Your task to perform on an android device: turn on wifi Image 0: 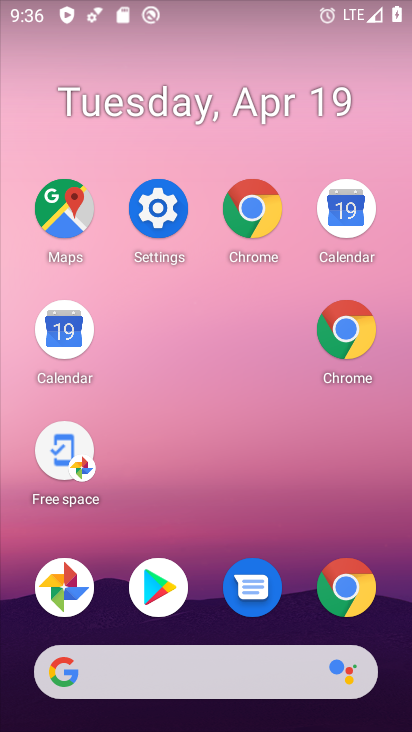
Step 0: click (163, 226)
Your task to perform on an android device: turn on wifi Image 1: 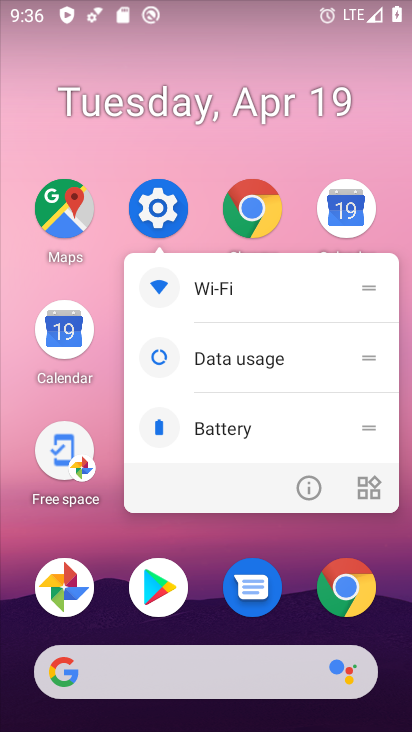
Step 1: click (163, 205)
Your task to perform on an android device: turn on wifi Image 2: 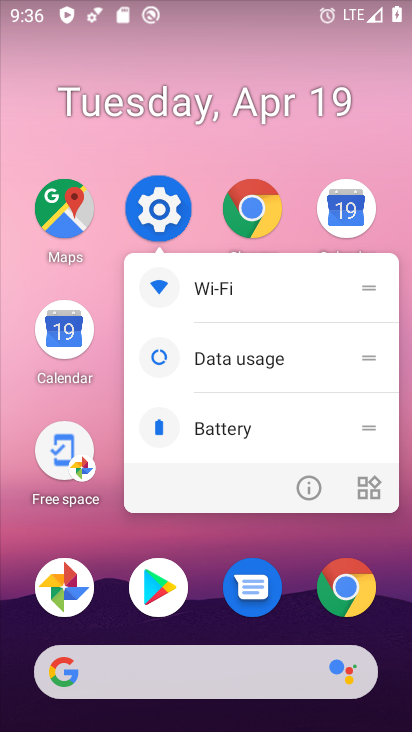
Step 2: click (164, 204)
Your task to perform on an android device: turn on wifi Image 3: 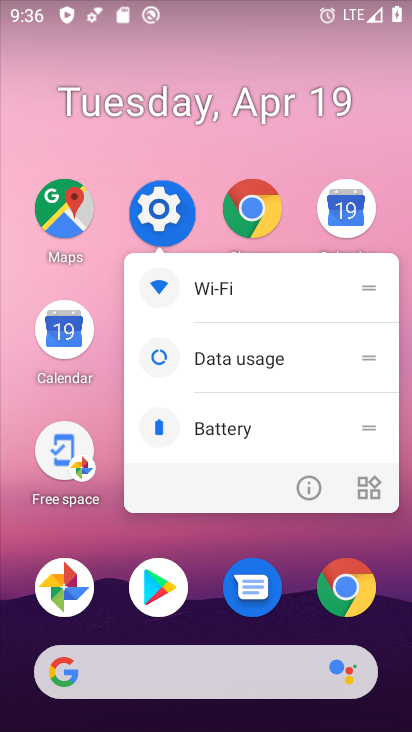
Step 3: click (171, 222)
Your task to perform on an android device: turn on wifi Image 4: 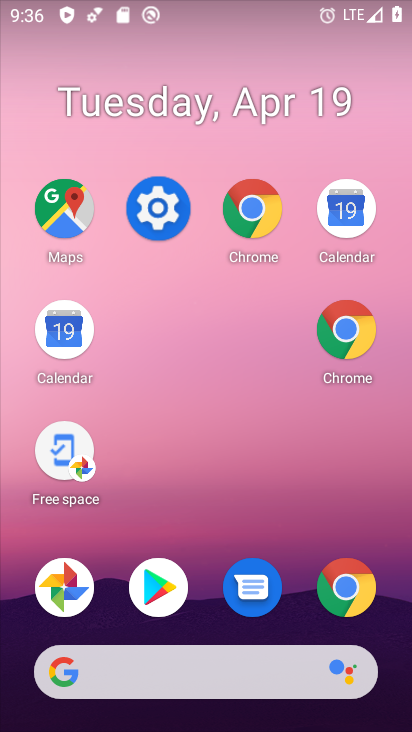
Step 4: click (201, 294)
Your task to perform on an android device: turn on wifi Image 5: 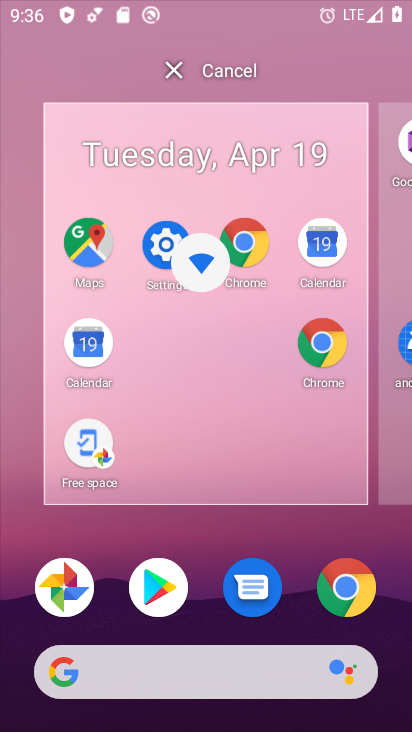
Step 5: click (201, 289)
Your task to perform on an android device: turn on wifi Image 6: 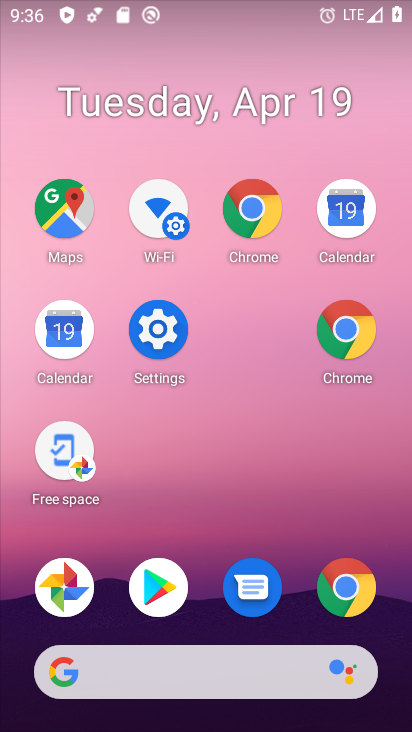
Step 6: click (165, 337)
Your task to perform on an android device: turn on wifi Image 7: 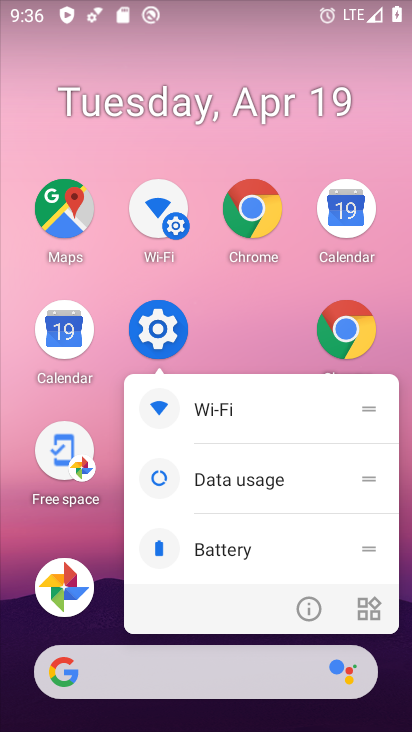
Step 7: click (206, 402)
Your task to perform on an android device: turn on wifi Image 8: 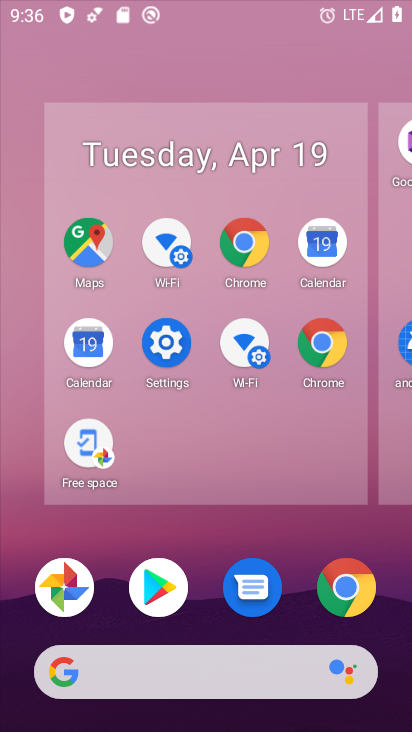
Step 8: click (158, 338)
Your task to perform on an android device: turn on wifi Image 9: 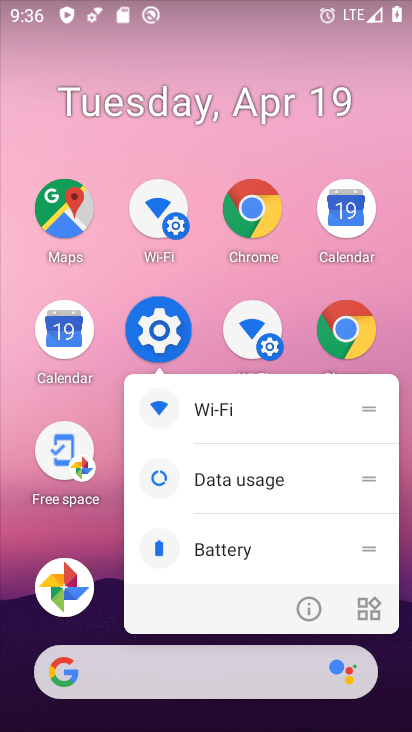
Step 9: click (158, 338)
Your task to perform on an android device: turn on wifi Image 10: 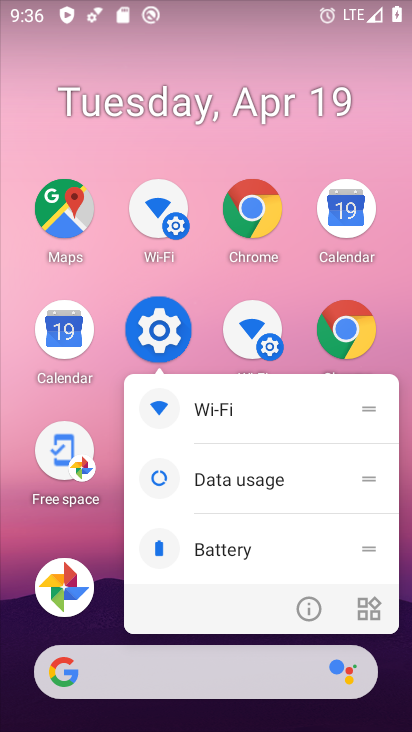
Step 10: click (158, 338)
Your task to perform on an android device: turn on wifi Image 11: 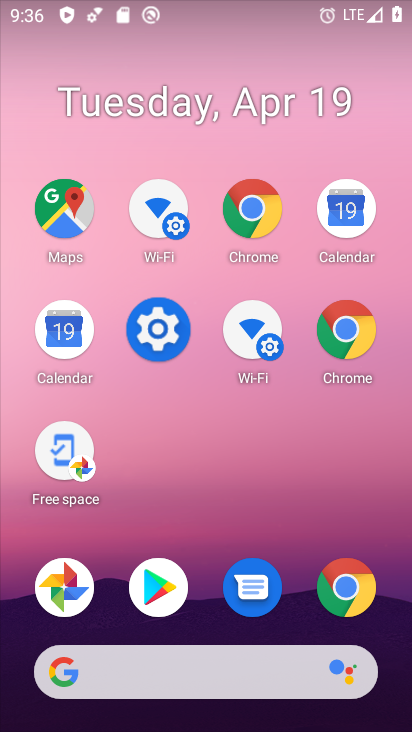
Step 11: click (158, 338)
Your task to perform on an android device: turn on wifi Image 12: 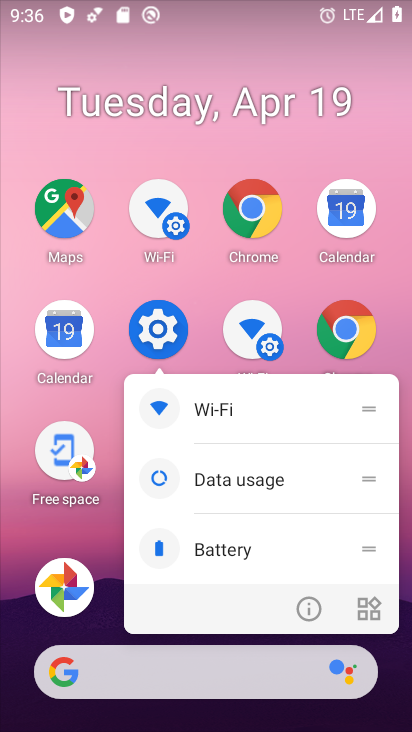
Step 12: click (158, 338)
Your task to perform on an android device: turn on wifi Image 13: 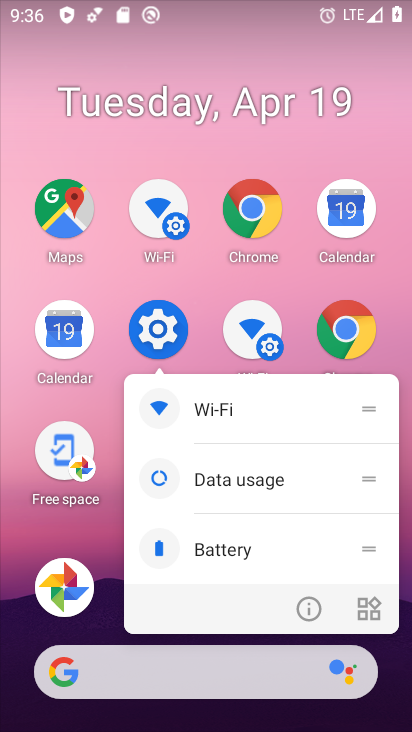
Step 13: click (158, 338)
Your task to perform on an android device: turn on wifi Image 14: 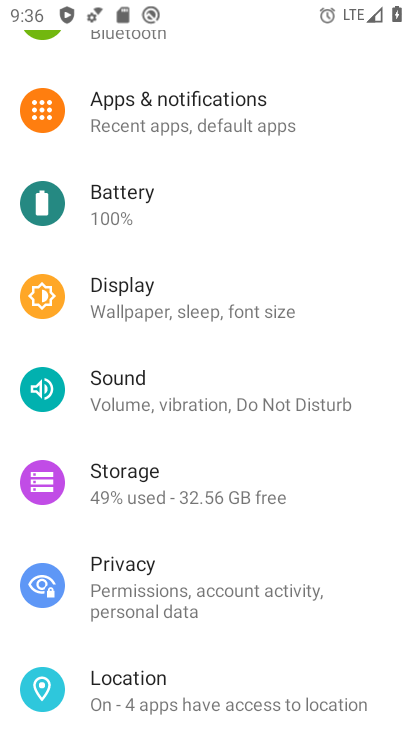
Step 14: drag from (129, 84) to (146, 514)
Your task to perform on an android device: turn on wifi Image 15: 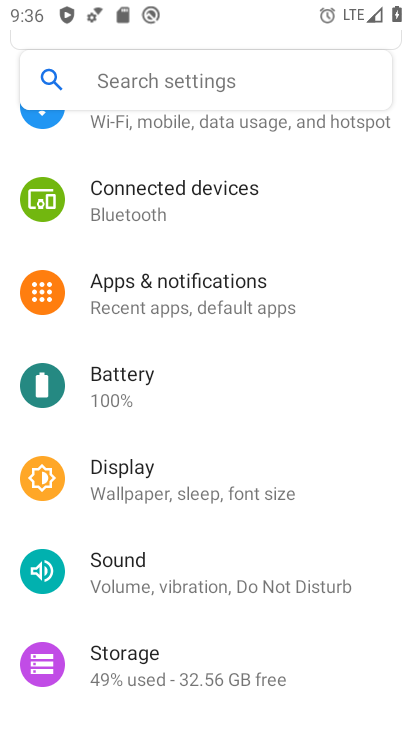
Step 15: drag from (201, 280) to (235, 647)
Your task to perform on an android device: turn on wifi Image 16: 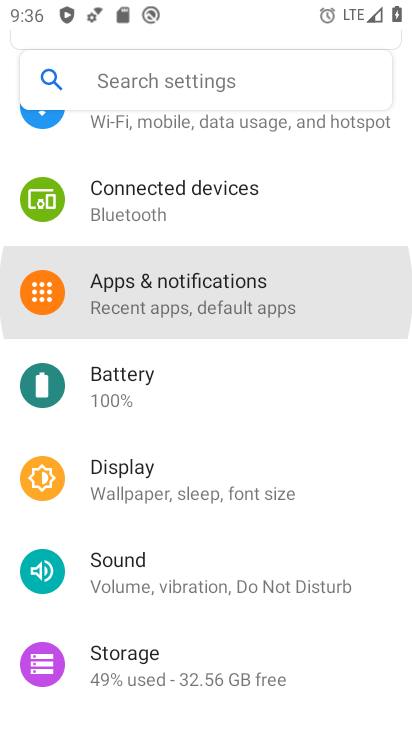
Step 16: drag from (239, 200) to (355, 626)
Your task to perform on an android device: turn on wifi Image 17: 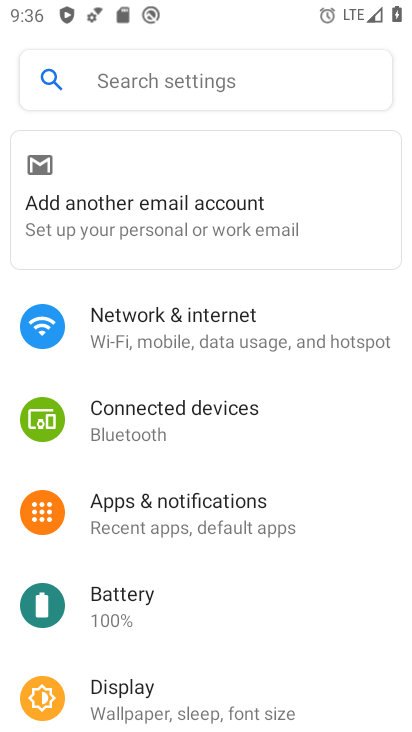
Step 17: click (177, 320)
Your task to perform on an android device: turn on wifi Image 18: 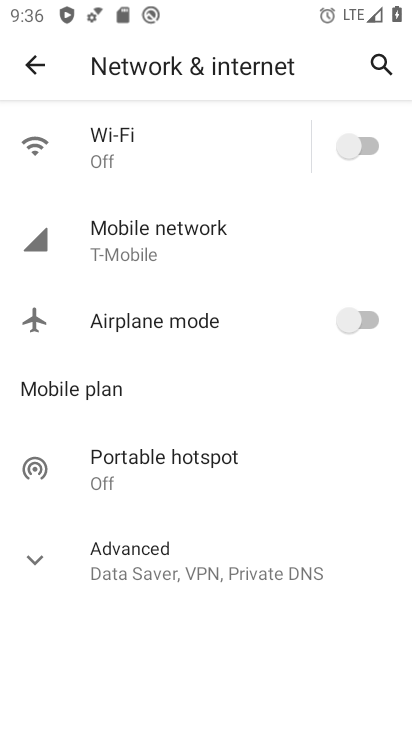
Step 18: click (350, 148)
Your task to perform on an android device: turn on wifi Image 19: 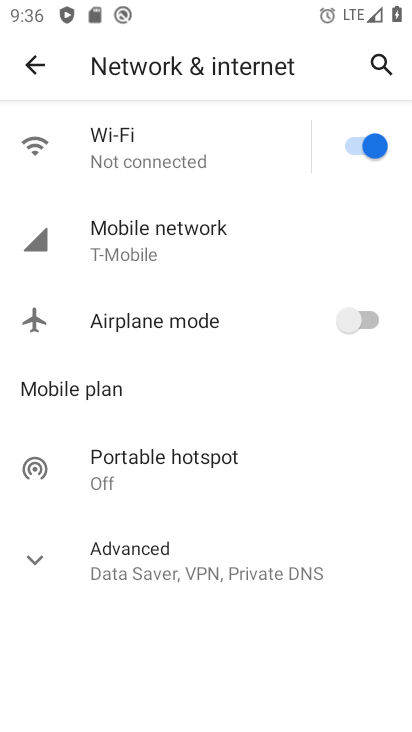
Step 19: task complete